Your task to perform on an android device: Go to Android settings Image 0: 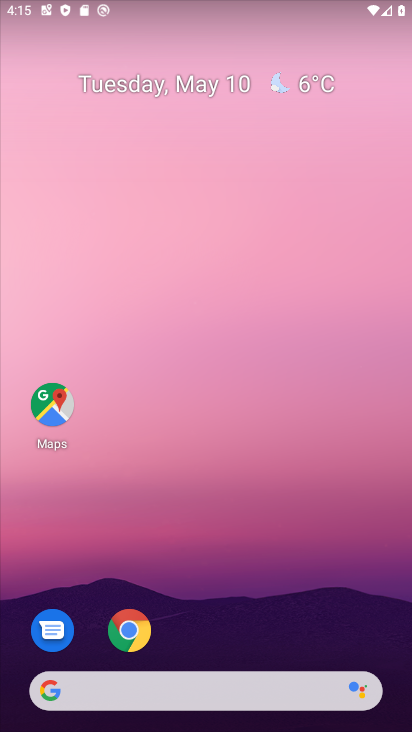
Step 0: drag from (237, 628) to (170, 217)
Your task to perform on an android device: Go to Android settings Image 1: 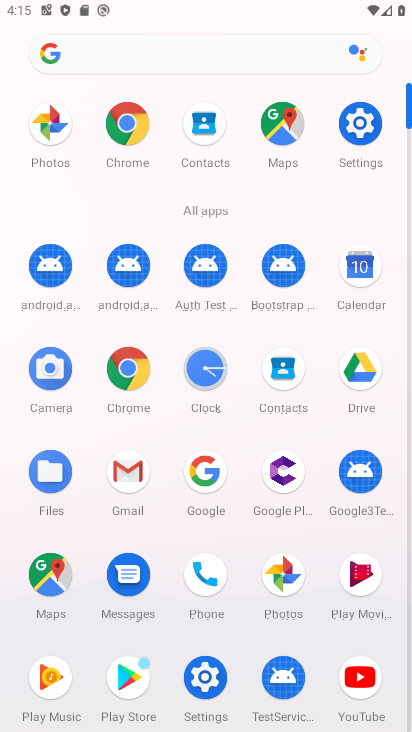
Step 1: click (351, 124)
Your task to perform on an android device: Go to Android settings Image 2: 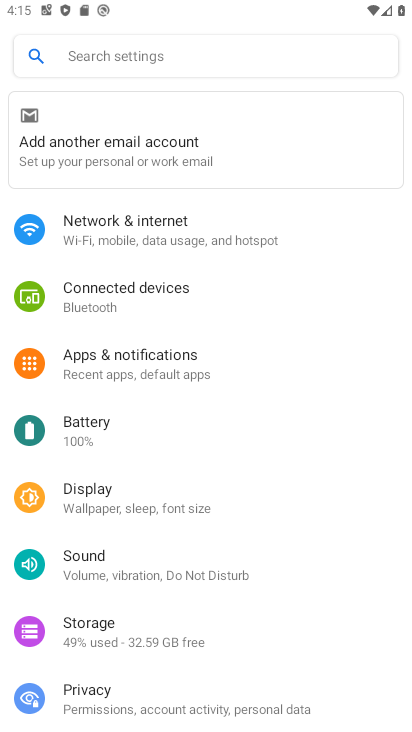
Step 2: task complete